Your task to perform on an android device: Show the shopping cart on amazon.com. Search for razer blade on amazon.com, select the first entry, and add it to the cart. Image 0: 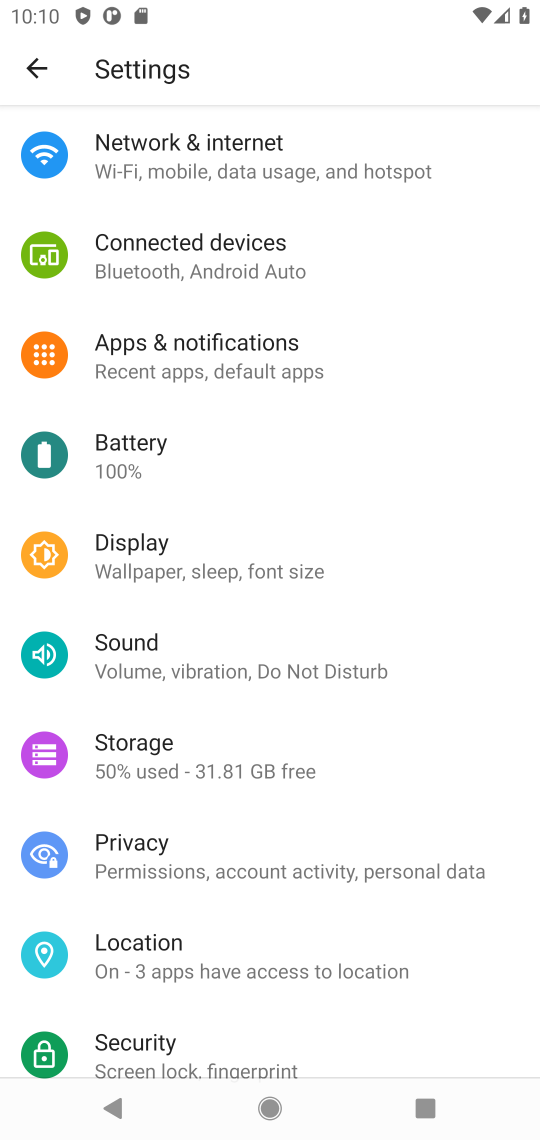
Step 0: press home button
Your task to perform on an android device: Show the shopping cart on amazon.com. Search for razer blade on amazon.com, select the first entry, and add it to the cart. Image 1: 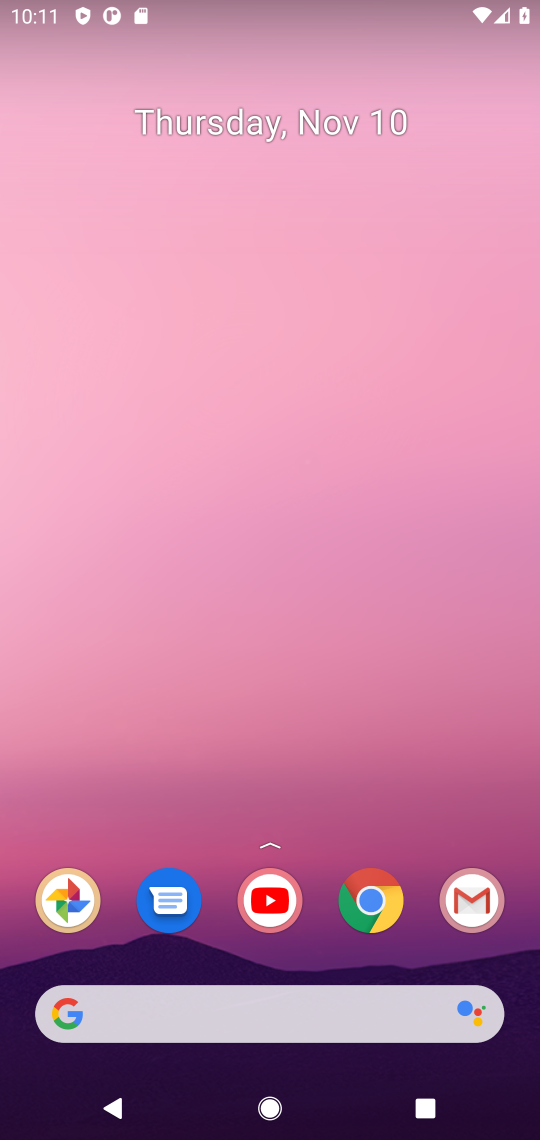
Step 1: click (360, 904)
Your task to perform on an android device: Show the shopping cart on amazon.com. Search for razer blade on amazon.com, select the first entry, and add it to the cart. Image 2: 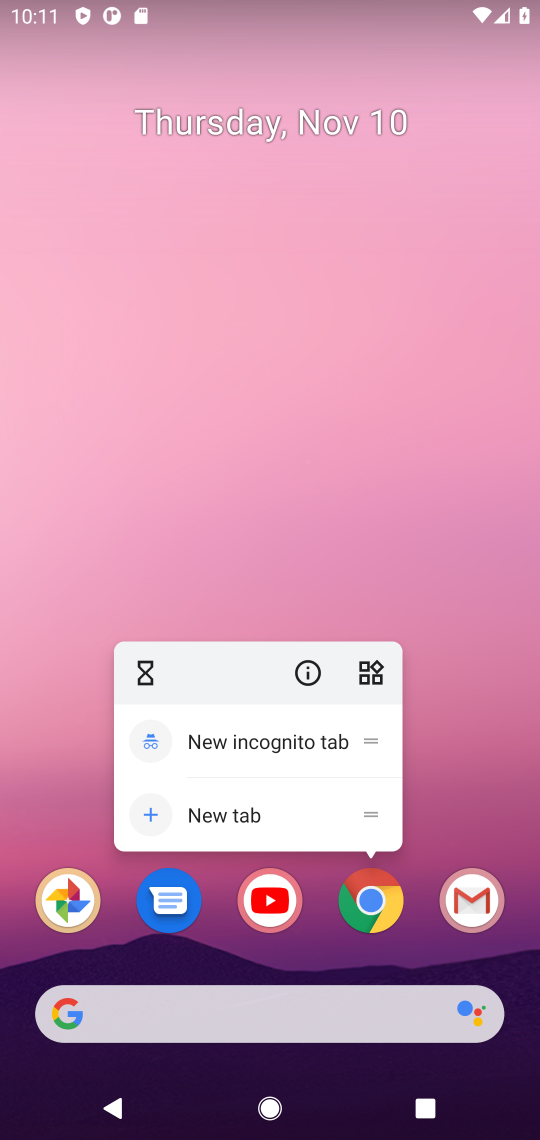
Step 2: click (360, 904)
Your task to perform on an android device: Show the shopping cart on amazon.com. Search for razer blade on amazon.com, select the first entry, and add it to the cart. Image 3: 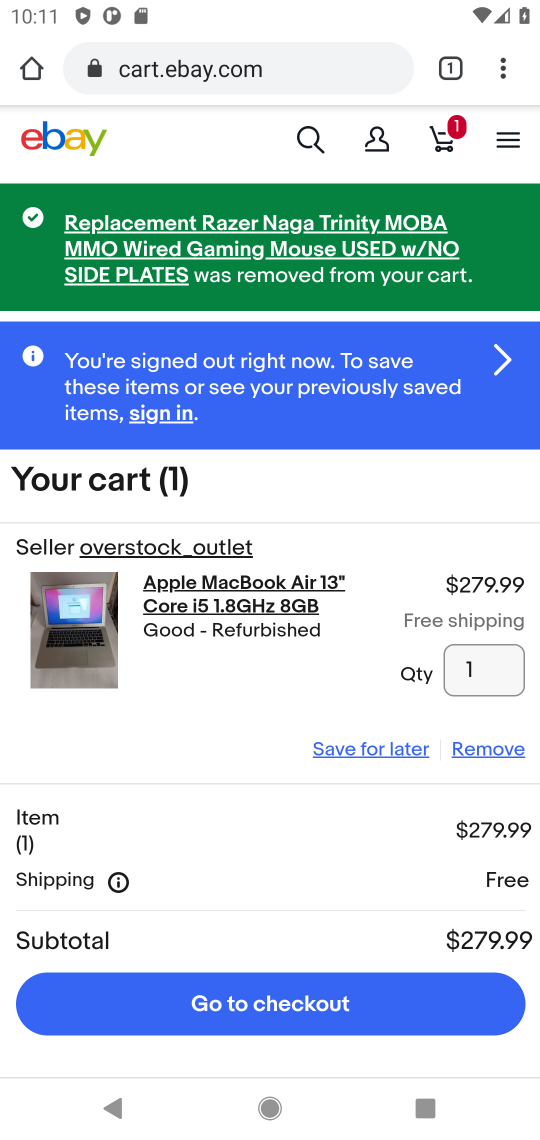
Step 3: click (281, 56)
Your task to perform on an android device: Show the shopping cart on amazon.com. Search for razer blade on amazon.com, select the first entry, and add it to the cart. Image 4: 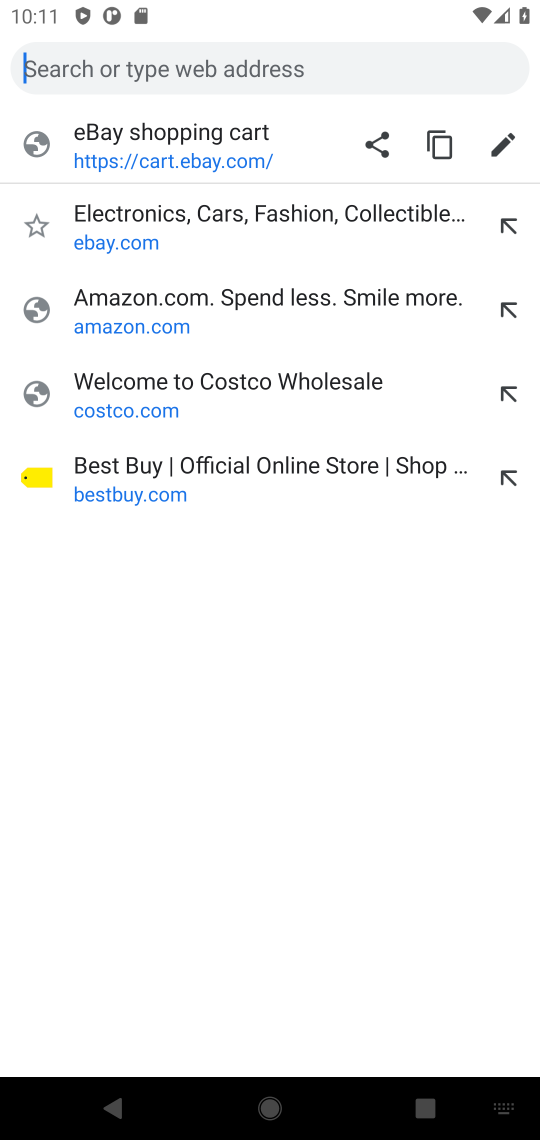
Step 4: click (137, 328)
Your task to perform on an android device: Show the shopping cart on amazon.com. Search for razer blade on amazon.com, select the first entry, and add it to the cart. Image 5: 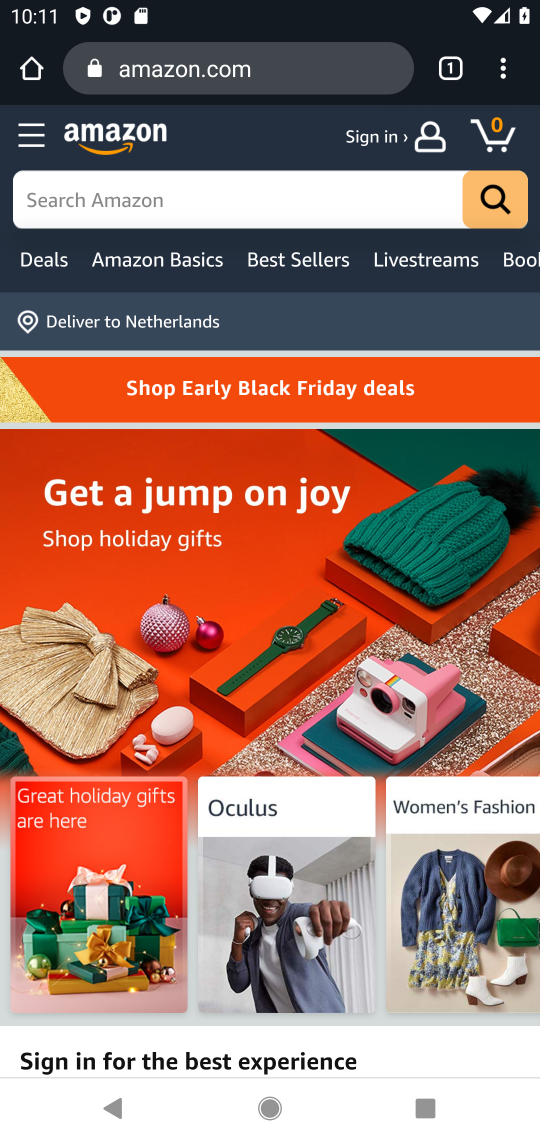
Step 5: click (101, 204)
Your task to perform on an android device: Show the shopping cart on amazon.com. Search for razer blade on amazon.com, select the first entry, and add it to the cart. Image 6: 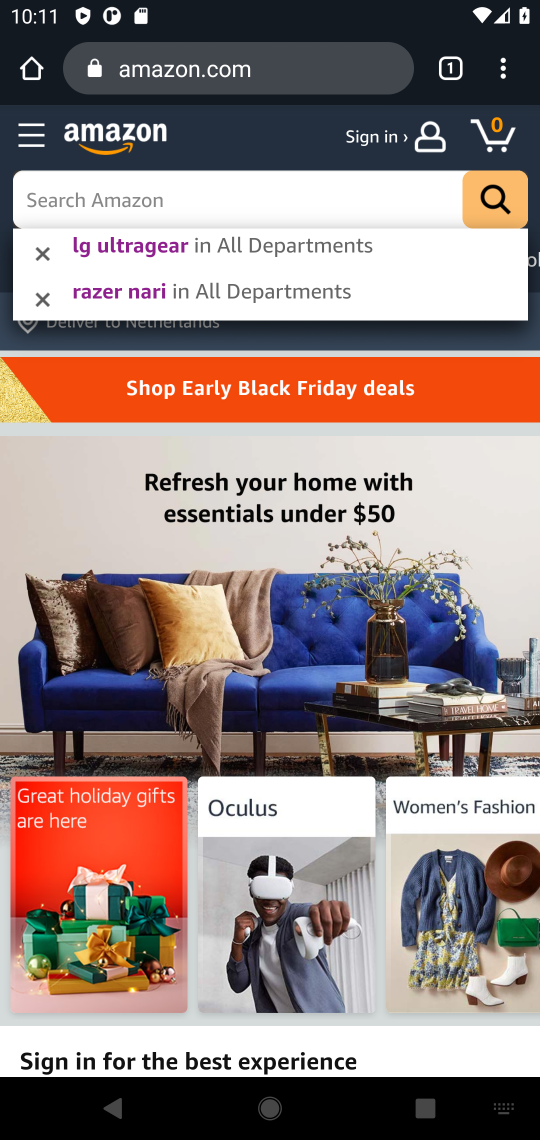
Step 6: click (95, 197)
Your task to perform on an android device: Show the shopping cart on amazon.com. Search for razer blade on amazon.com, select the first entry, and add it to the cart. Image 7: 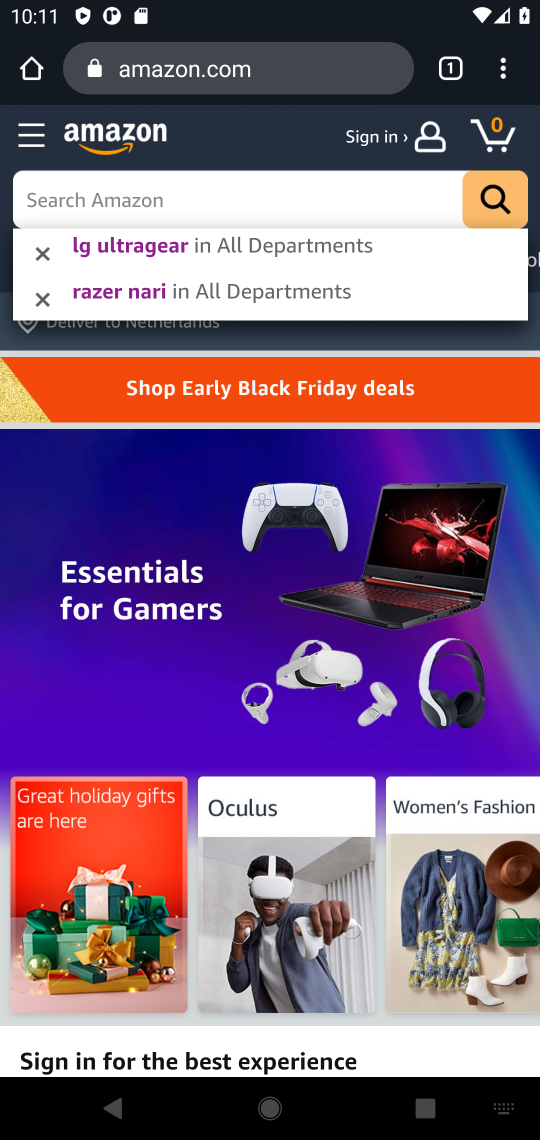
Step 7: type "razer blade"
Your task to perform on an android device: Show the shopping cart on amazon.com. Search for razer blade on amazon.com, select the first entry, and add it to the cart. Image 8: 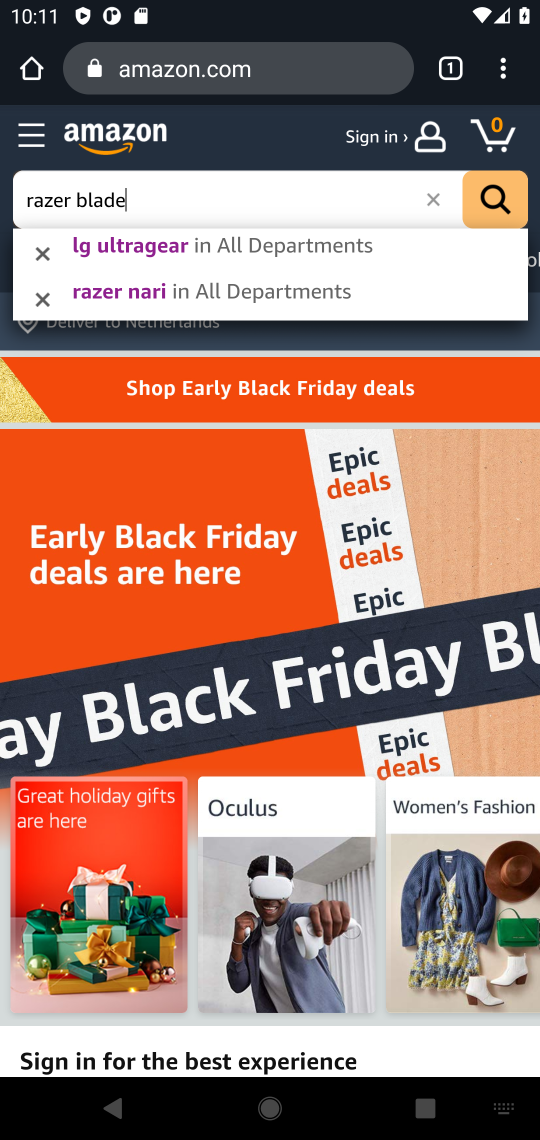
Step 8: press enter
Your task to perform on an android device: Show the shopping cart on amazon.com. Search for razer blade on amazon.com, select the first entry, and add it to the cart. Image 9: 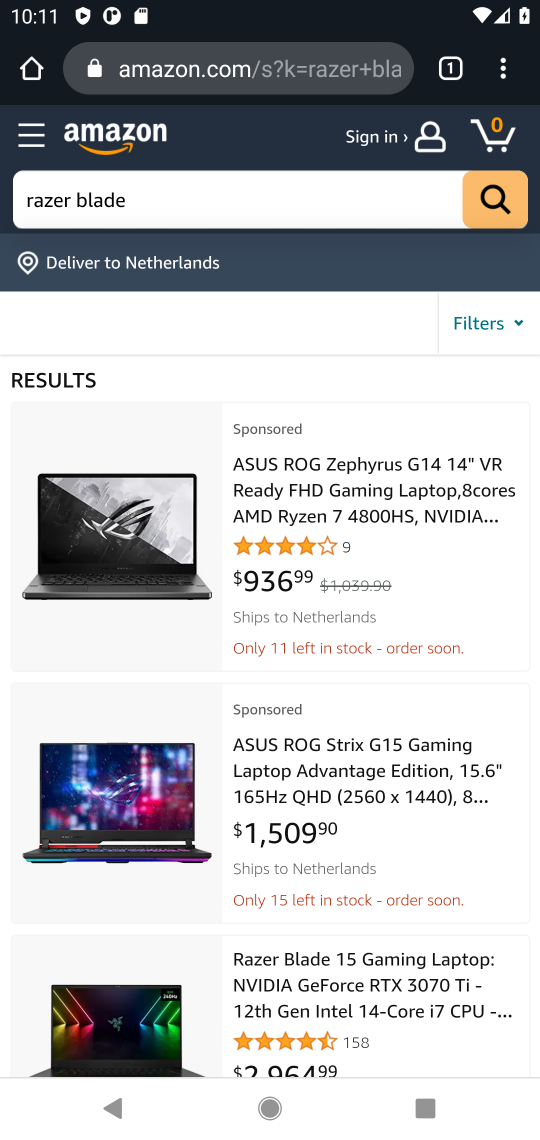
Step 9: click (397, 490)
Your task to perform on an android device: Show the shopping cart on amazon.com. Search for razer blade on amazon.com, select the first entry, and add it to the cart. Image 10: 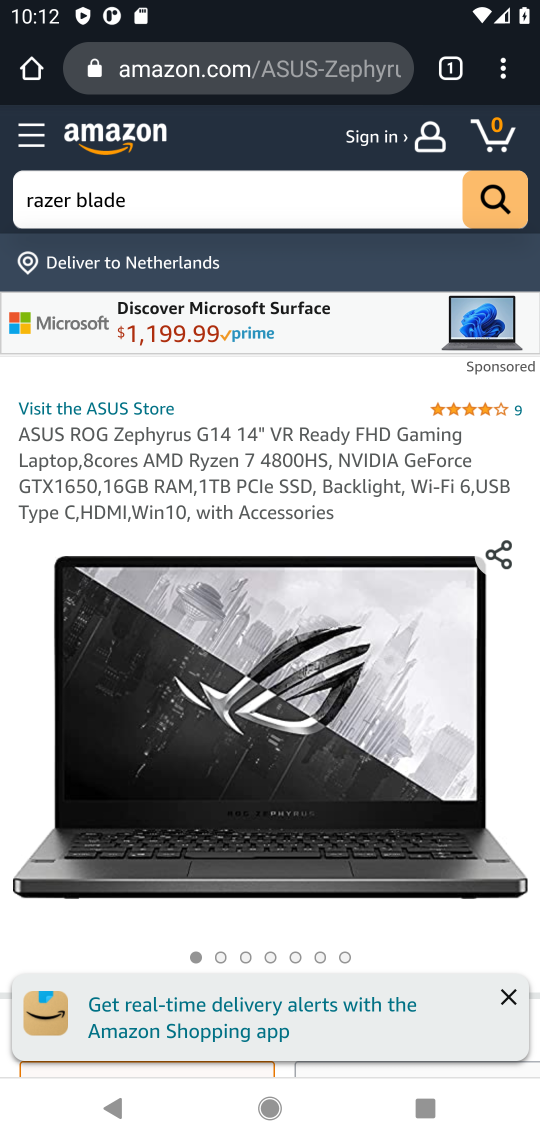
Step 10: drag from (103, 943) to (350, 145)
Your task to perform on an android device: Show the shopping cart on amazon.com. Search for razer blade on amazon.com, select the first entry, and add it to the cart. Image 11: 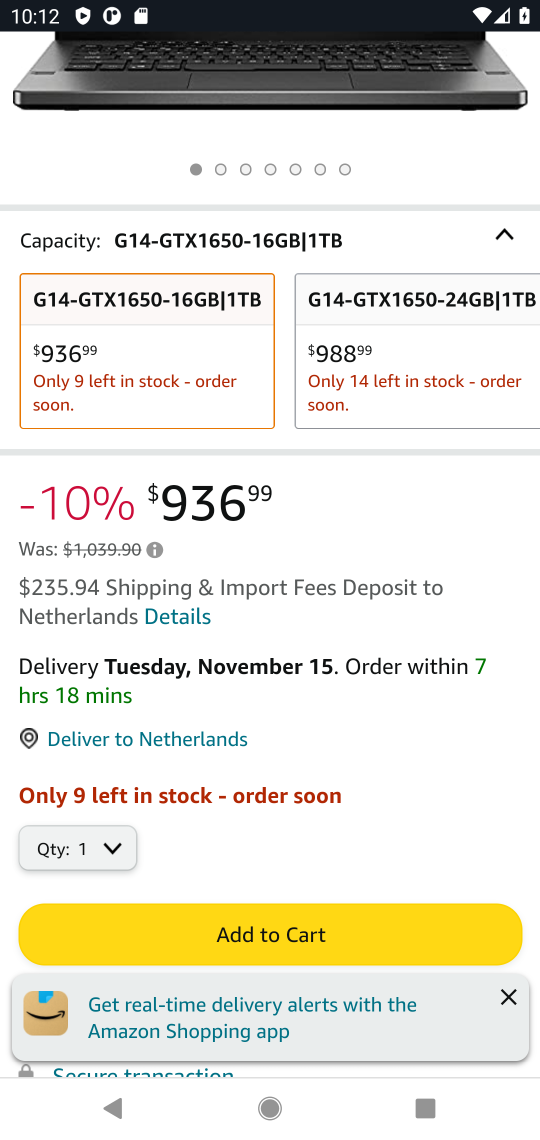
Step 11: click (503, 996)
Your task to perform on an android device: Show the shopping cart on amazon.com. Search for razer blade on amazon.com, select the first entry, and add it to the cart. Image 12: 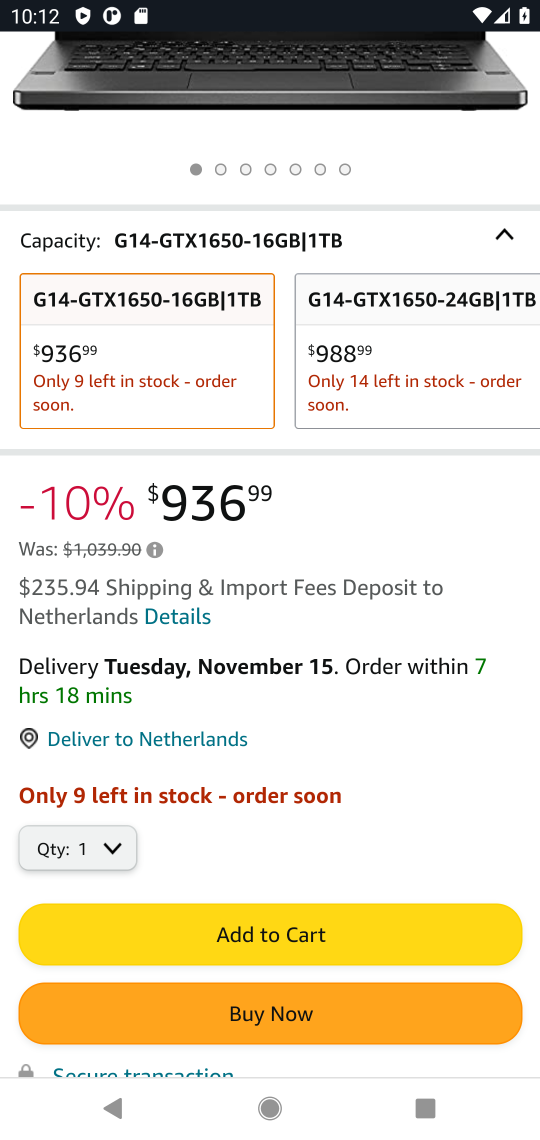
Step 12: task complete